Your task to perform on an android device: Go to sound settings Image 0: 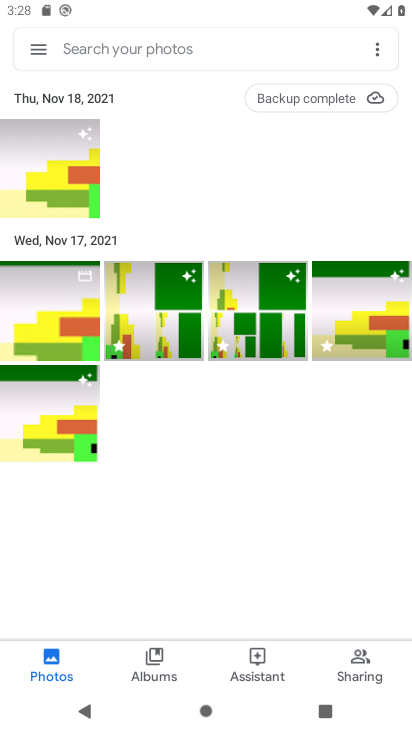
Step 0: press home button
Your task to perform on an android device: Go to sound settings Image 1: 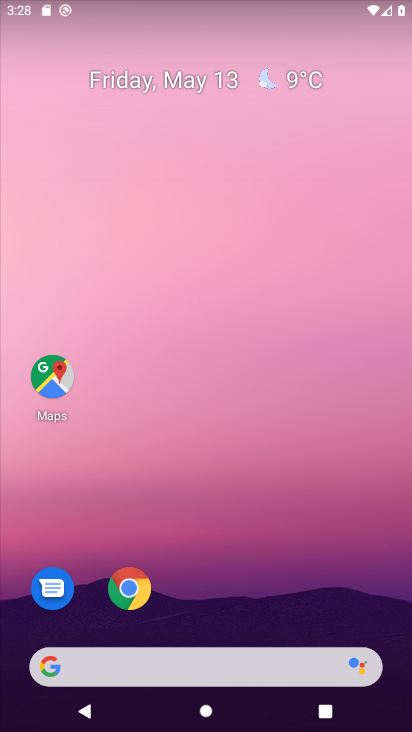
Step 1: drag from (349, 583) to (221, 137)
Your task to perform on an android device: Go to sound settings Image 2: 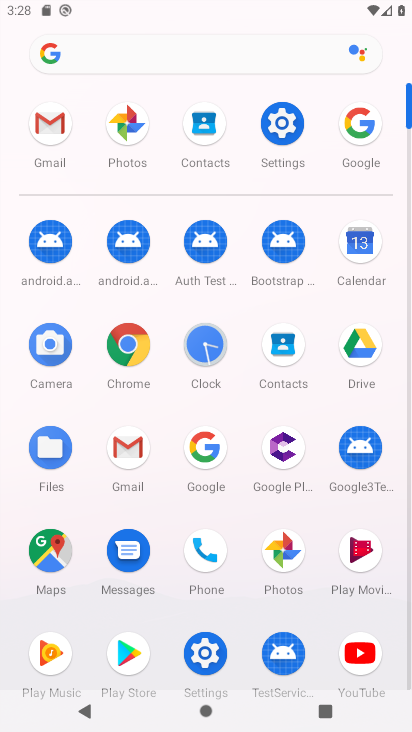
Step 2: click (285, 144)
Your task to perform on an android device: Go to sound settings Image 3: 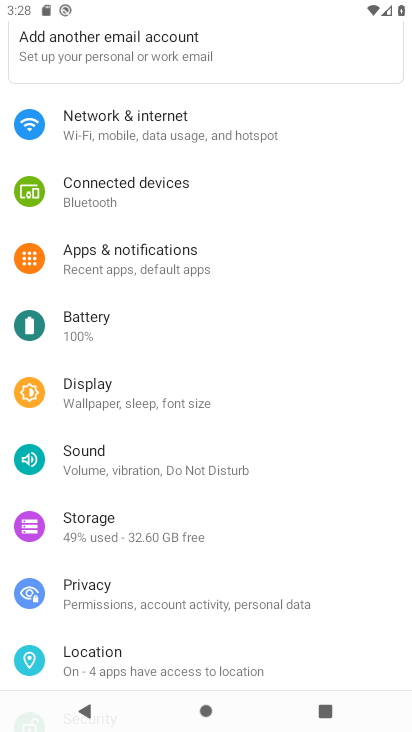
Step 3: click (65, 478)
Your task to perform on an android device: Go to sound settings Image 4: 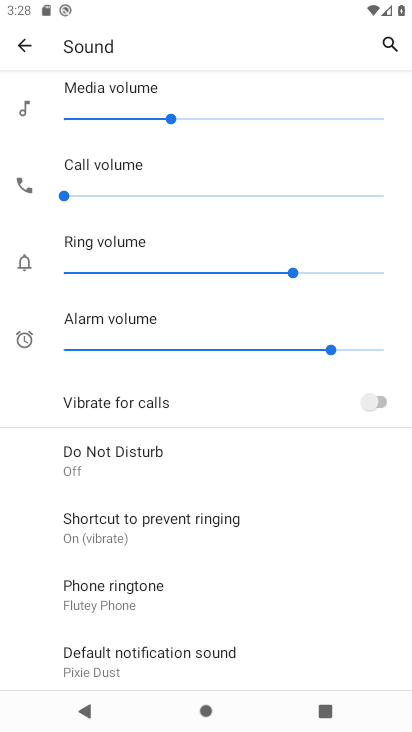
Step 4: task complete